Your task to perform on an android device: Open display settings Image 0: 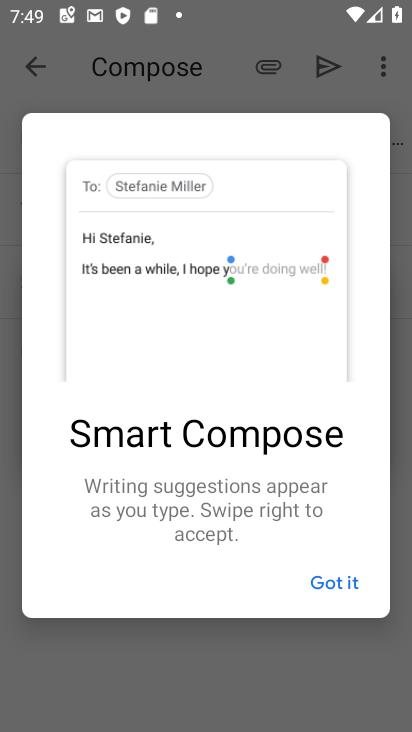
Step 0: press home button
Your task to perform on an android device: Open display settings Image 1: 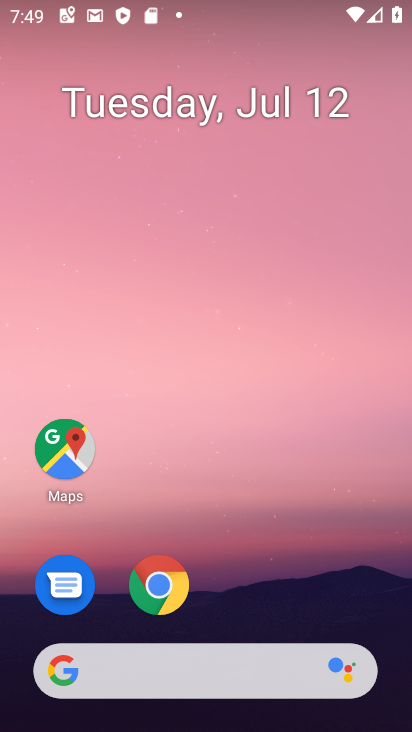
Step 1: drag from (273, 584) to (267, 80)
Your task to perform on an android device: Open display settings Image 2: 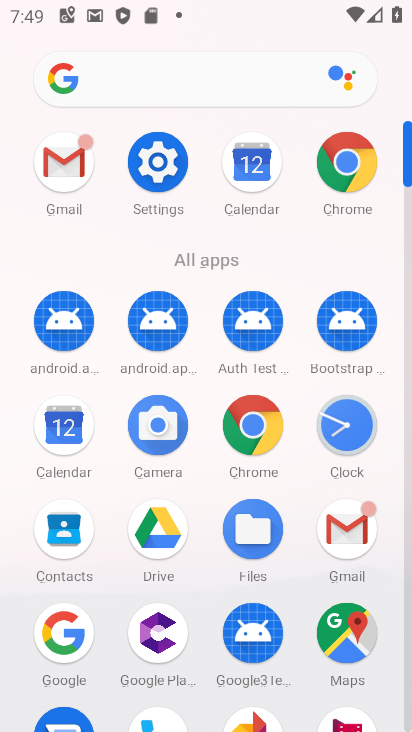
Step 2: click (171, 157)
Your task to perform on an android device: Open display settings Image 3: 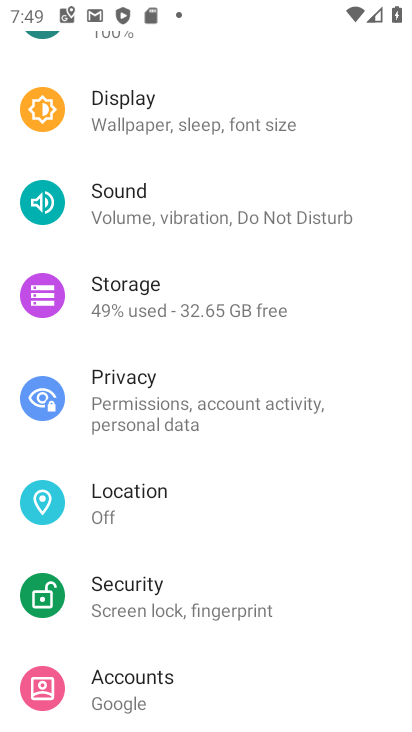
Step 3: click (172, 111)
Your task to perform on an android device: Open display settings Image 4: 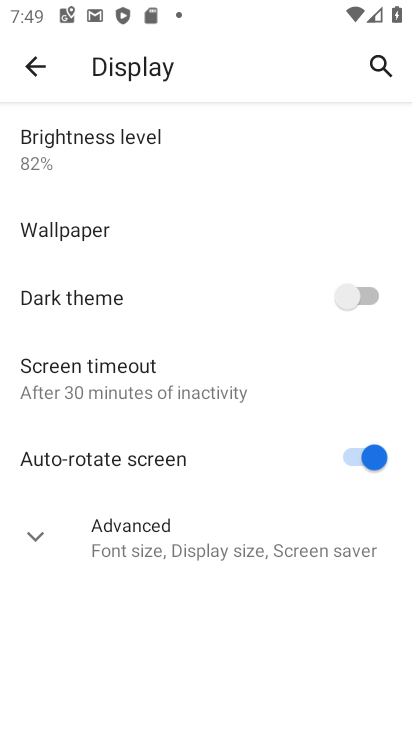
Step 4: task complete